Your task to perform on an android device: turn pop-ups off in chrome Image 0: 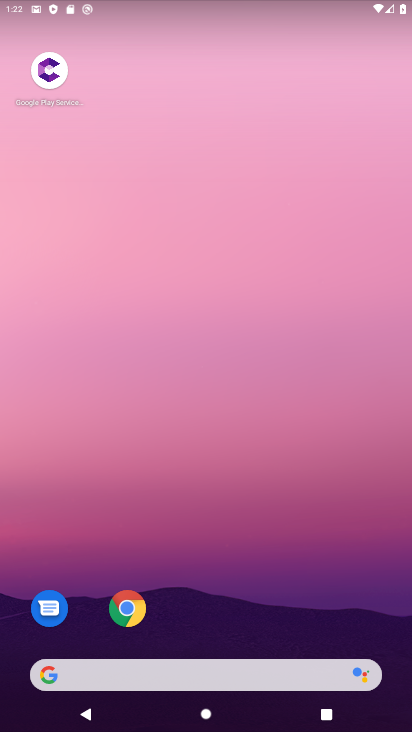
Step 0: click (134, 601)
Your task to perform on an android device: turn pop-ups off in chrome Image 1: 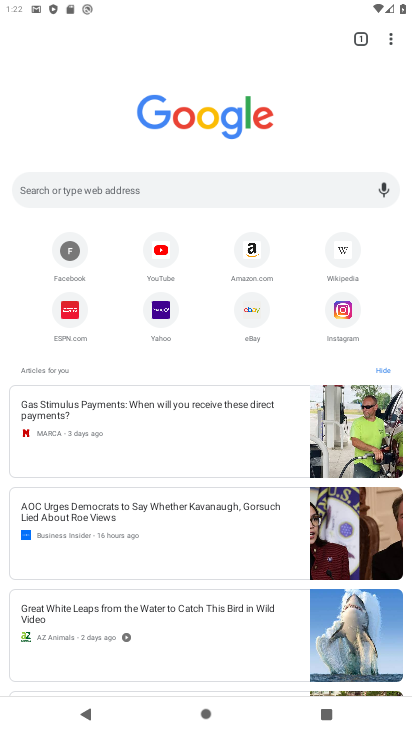
Step 1: click (394, 39)
Your task to perform on an android device: turn pop-ups off in chrome Image 2: 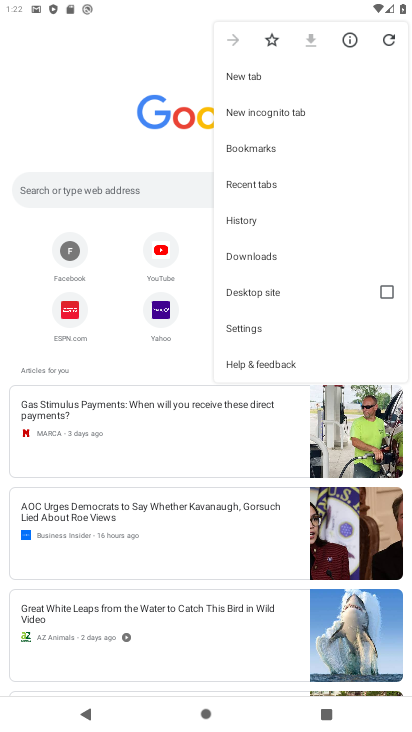
Step 2: click (276, 333)
Your task to perform on an android device: turn pop-ups off in chrome Image 3: 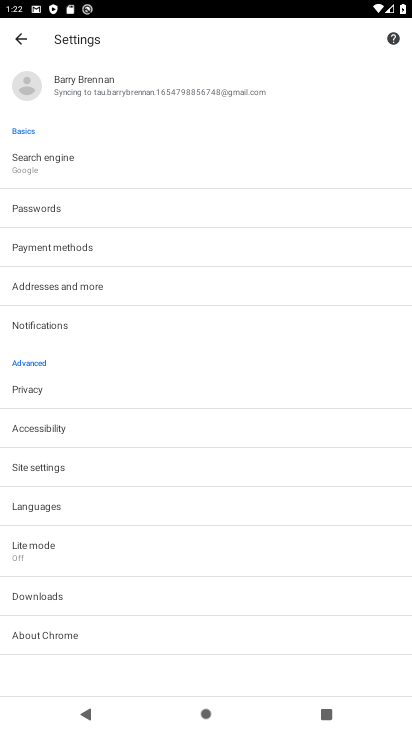
Step 3: click (150, 470)
Your task to perform on an android device: turn pop-ups off in chrome Image 4: 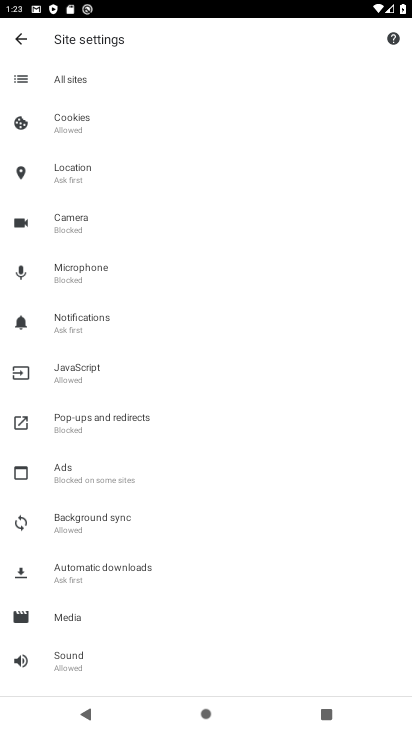
Step 4: click (126, 425)
Your task to perform on an android device: turn pop-ups off in chrome Image 5: 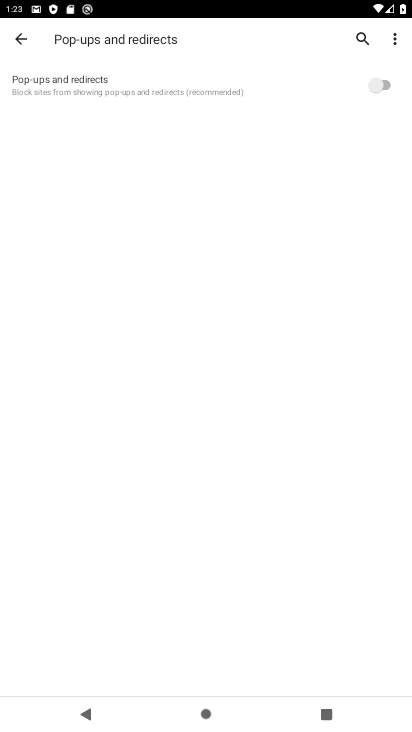
Step 5: task complete